Your task to perform on an android device: Open settings on Google Maps Image 0: 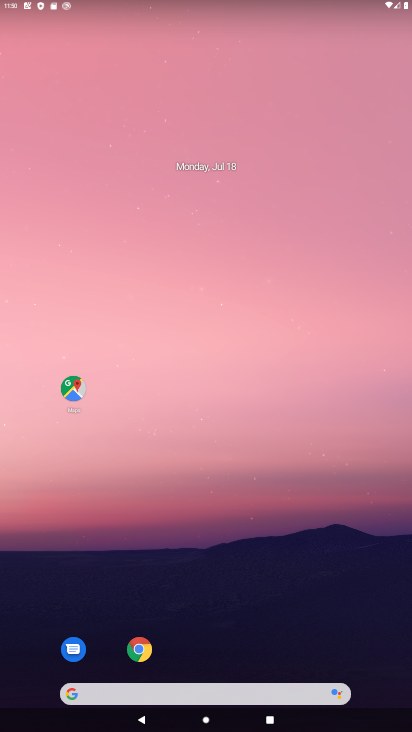
Step 0: click (68, 391)
Your task to perform on an android device: Open settings on Google Maps Image 1: 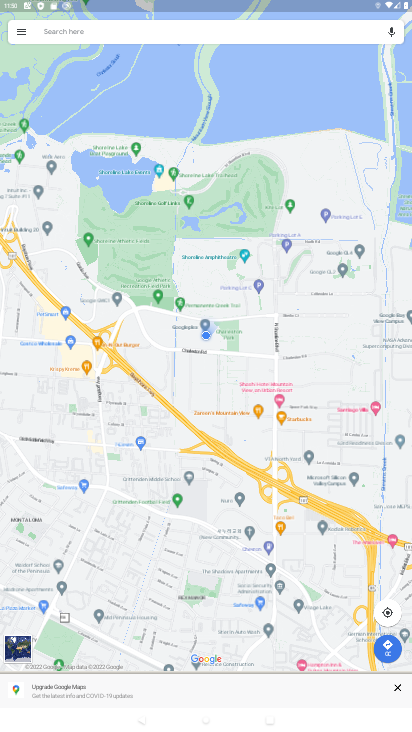
Step 1: task complete